Your task to perform on an android device: show emergency info Image 0: 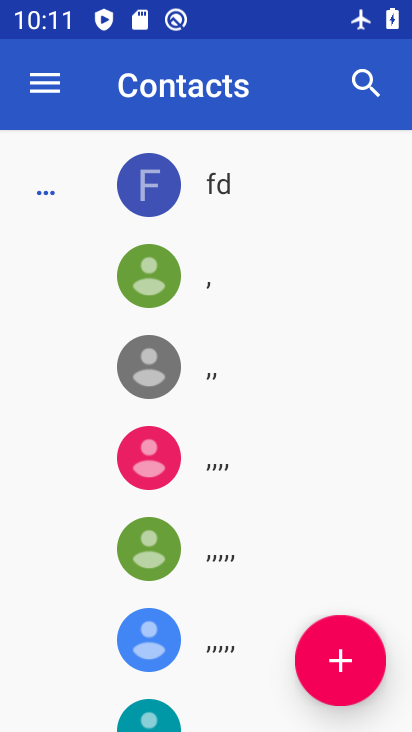
Step 0: press home button
Your task to perform on an android device: show emergency info Image 1: 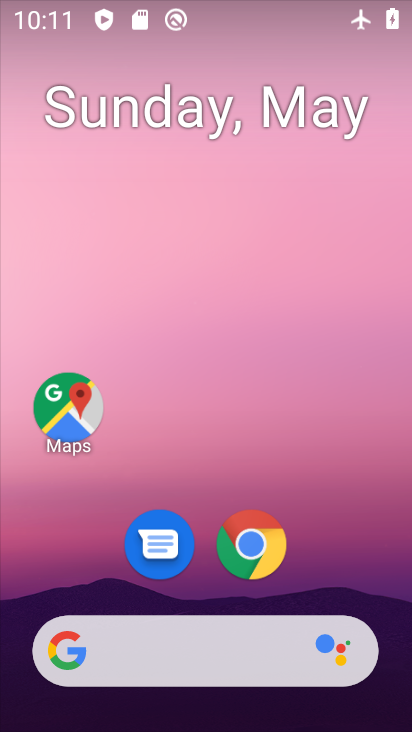
Step 1: drag from (342, 561) to (308, 218)
Your task to perform on an android device: show emergency info Image 2: 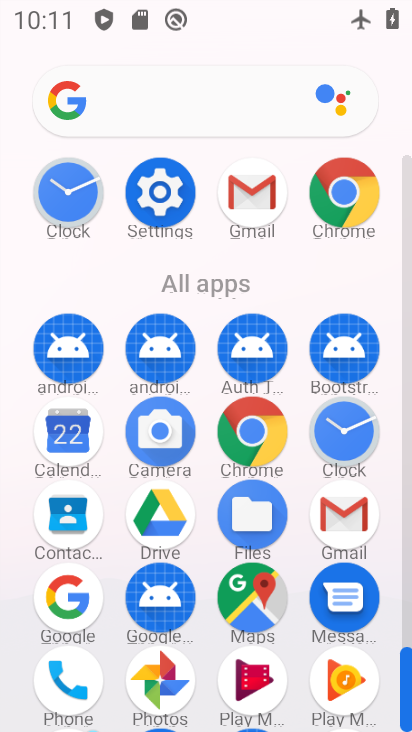
Step 2: click (157, 208)
Your task to perform on an android device: show emergency info Image 3: 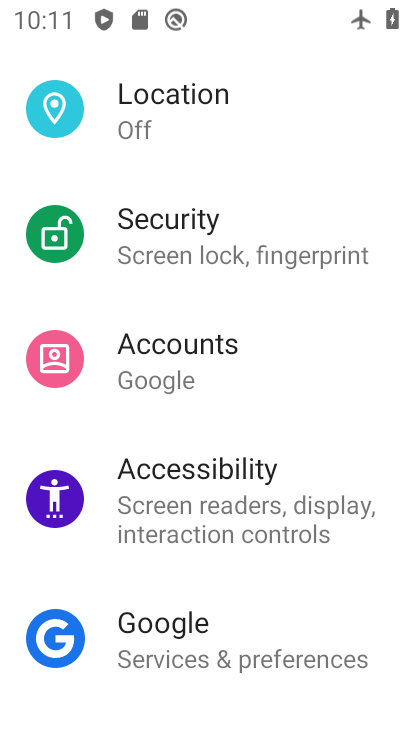
Step 3: drag from (188, 621) to (252, 142)
Your task to perform on an android device: show emergency info Image 4: 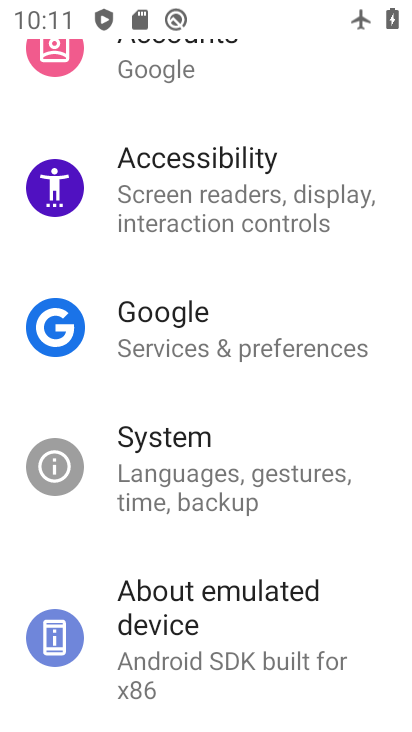
Step 4: drag from (210, 659) to (226, 590)
Your task to perform on an android device: show emergency info Image 5: 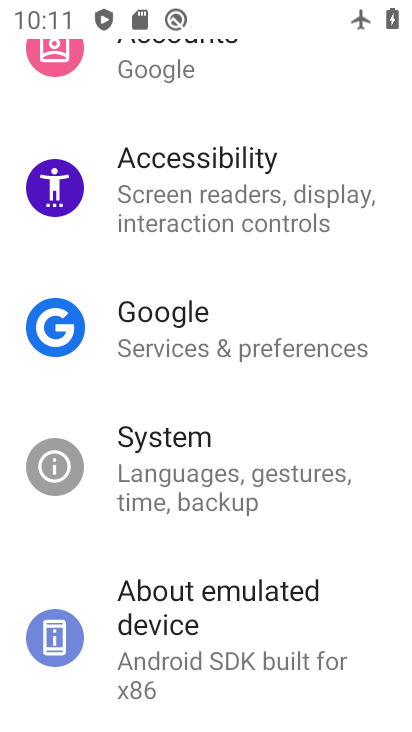
Step 5: click (226, 590)
Your task to perform on an android device: show emergency info Image 6: 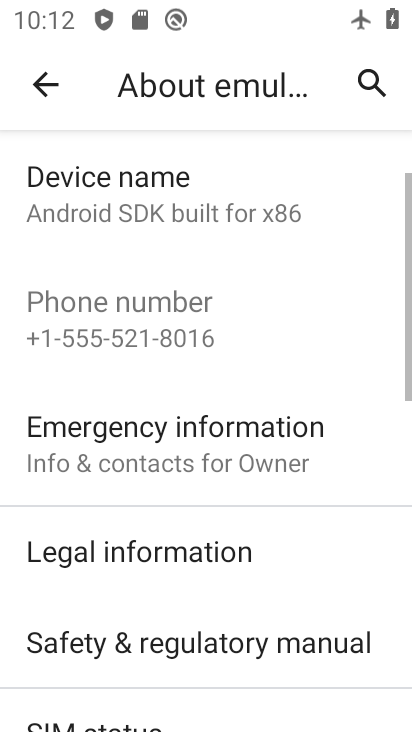
Step 6: task complete